Your task to perform on an android device: Search for Mexican restaurants on Maps Image 0: 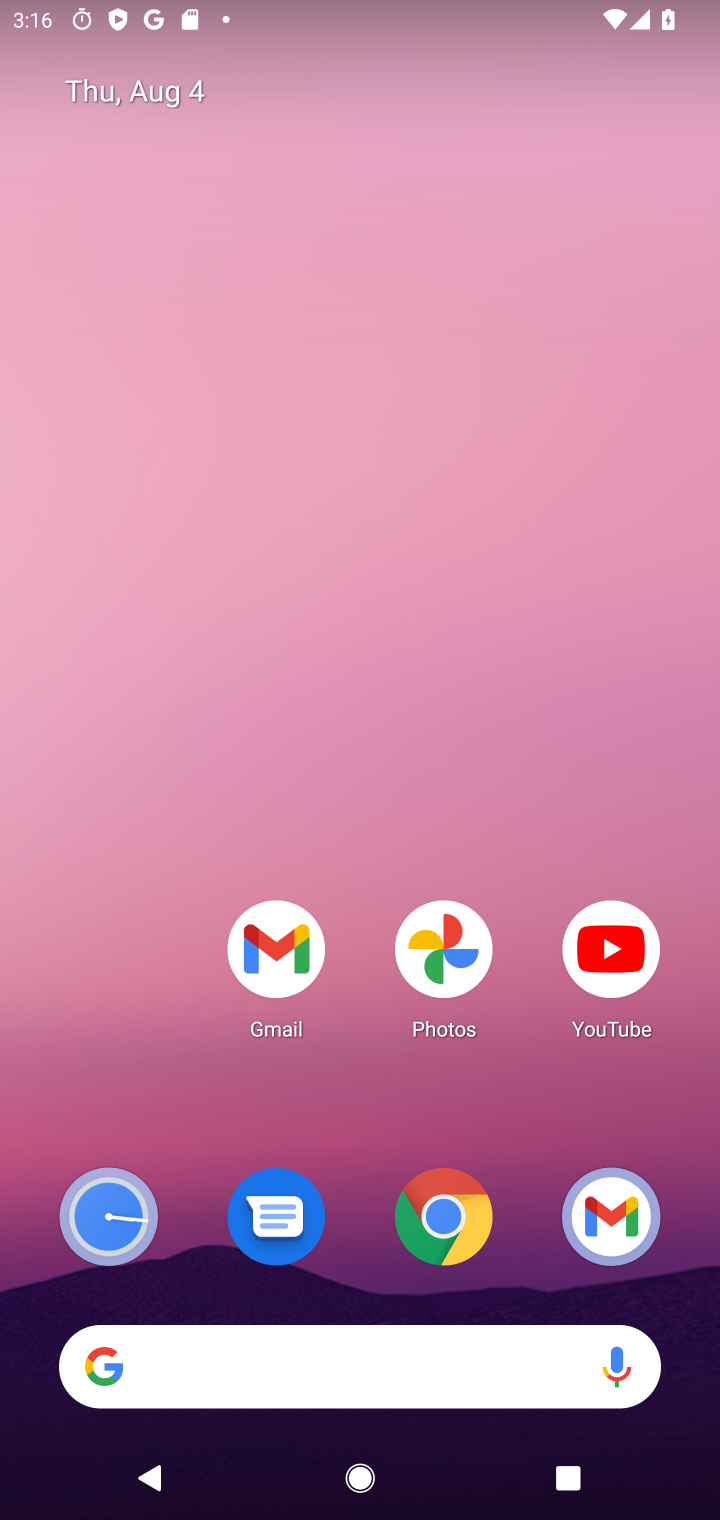
Step 0: drag from (193, 909) to (397, 14)
Your task to perform on an android device: Search for Mexican restaurants on Maps Image 1: 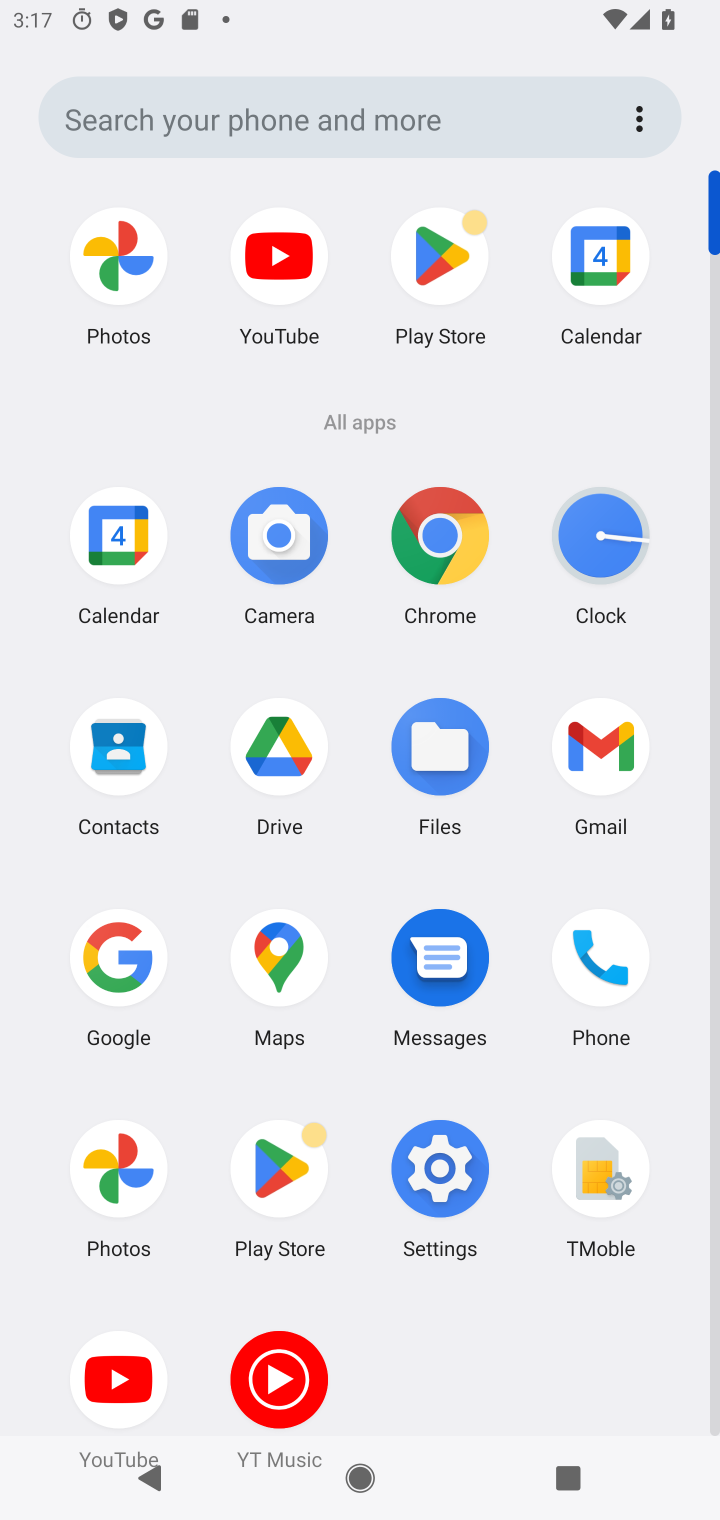
Step 1: click (267, 968)
Your task to perform on an android device: Search for Mexican restaurants on Maps Image 2: 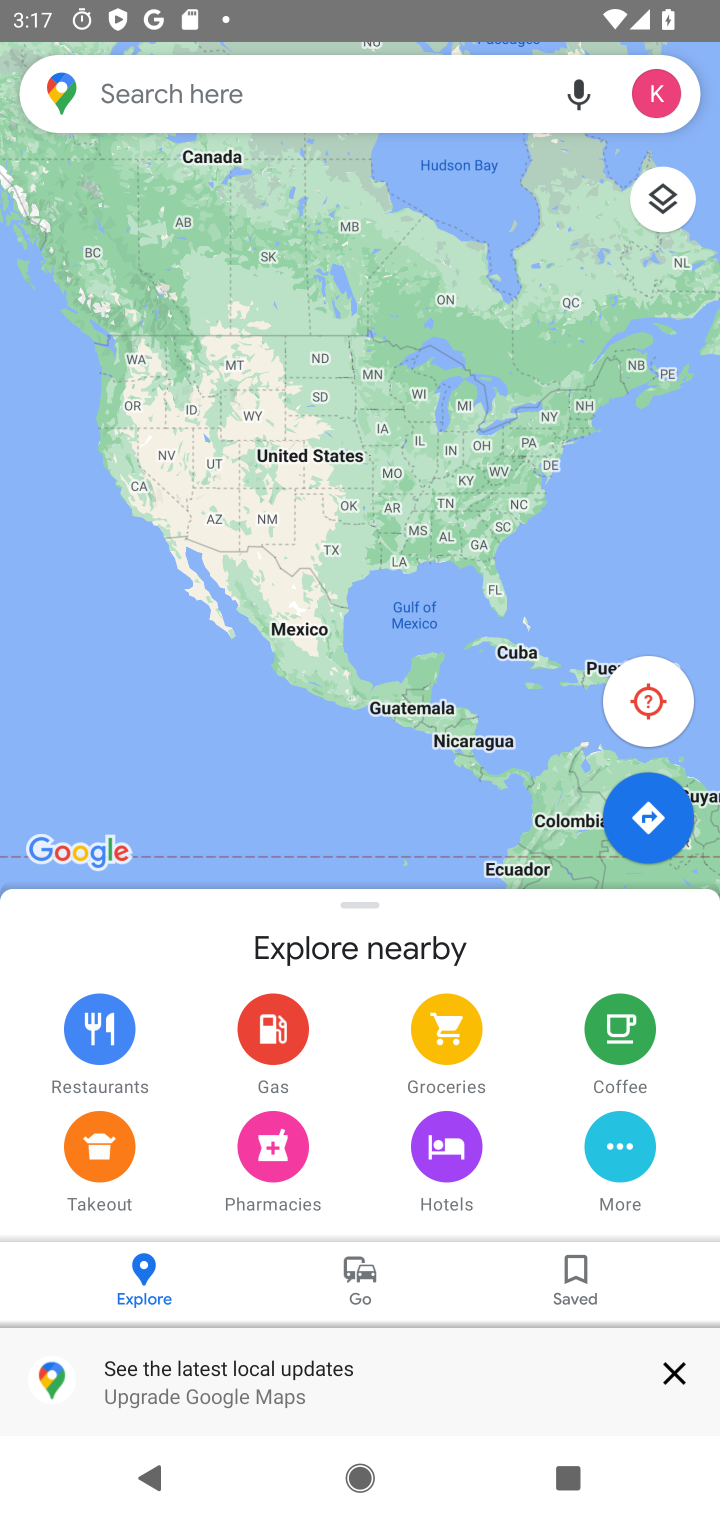
Step 2: click (238, 99)
Your task to perform on an android device: Search for Mexican restaurants on Maps Image 3: 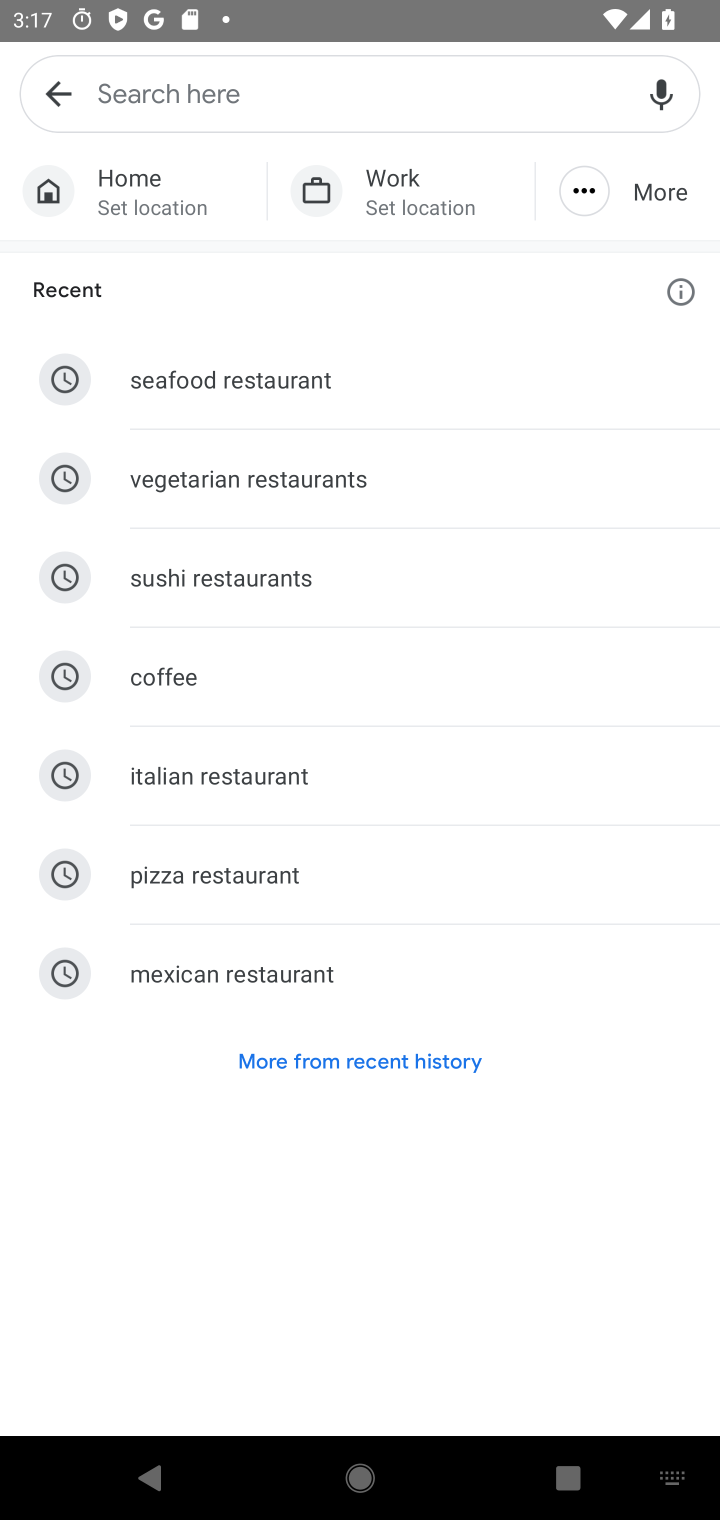
Step 3: click (283, 963)
Your task to perform on an android device: Search for Mexican restaurants on Maps Image 4: 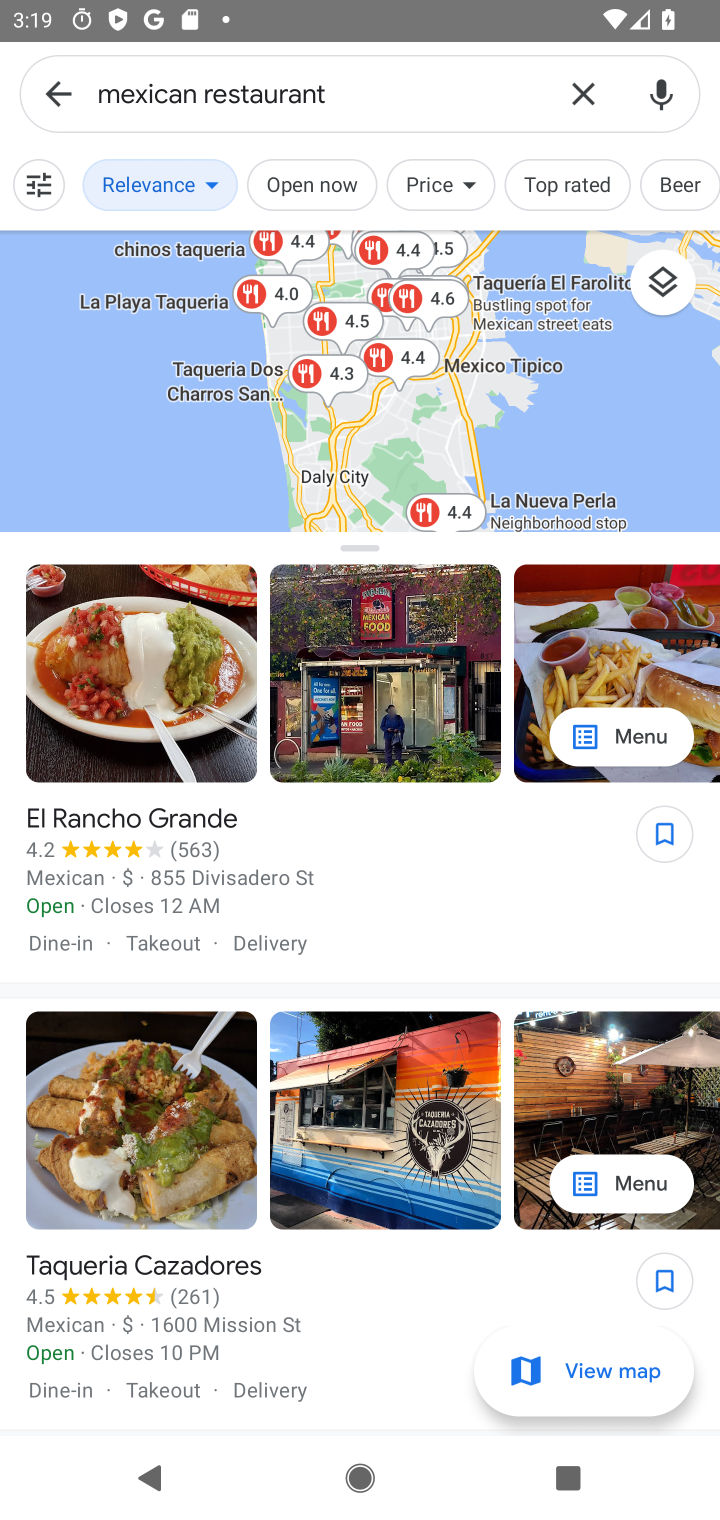
Step 4: task complete